Your task to perform on an android device: Open Chrome and go to the settings page Image 0: 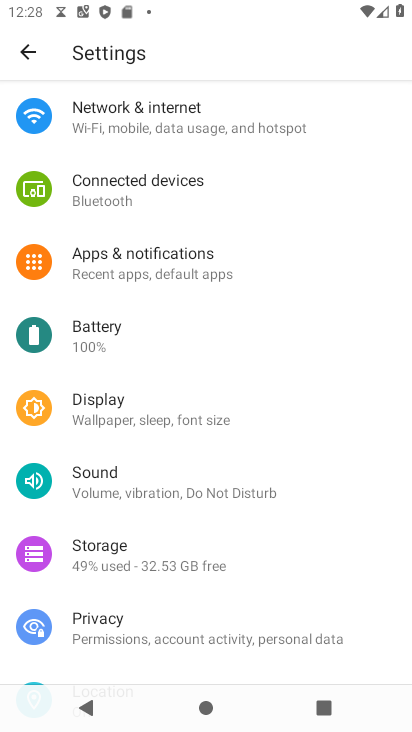
Step 0: press home button
Your task to perform on an android device: Open Chrome and go to the settings page Image 1: 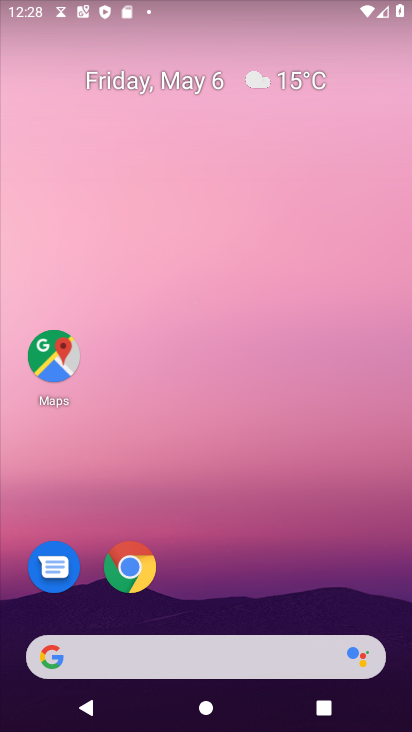
Step 1: click (114, 571)
Your task to perform on an android device: Open Chrome and go to the settings page Image 2: 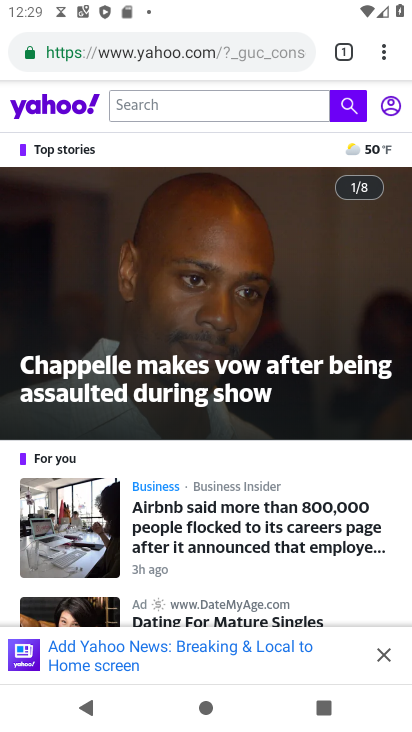
Step 2: task complete